Your task to perform on an android device: Open the calendar app, open the side menu, and click the "Day" option Image 0: 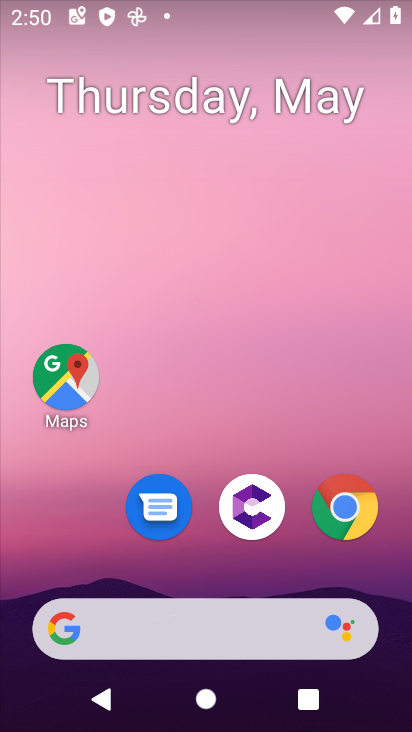
Step 0: drag from (381, 568) to (153, 19)
Your task to perform on an android device: Open the calendar app, open the side menu, and click the "Day" option Image 1: 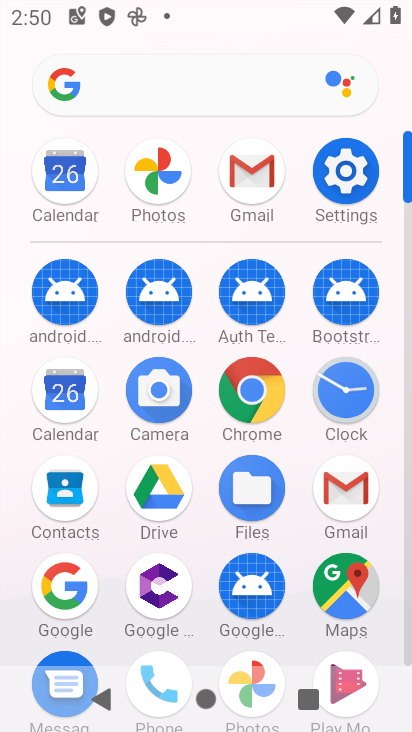
Step 1: click (52, 190)
Your task to perform on an android device: Open the calendar app, open the side menu, and click the "Day" option Image 2: 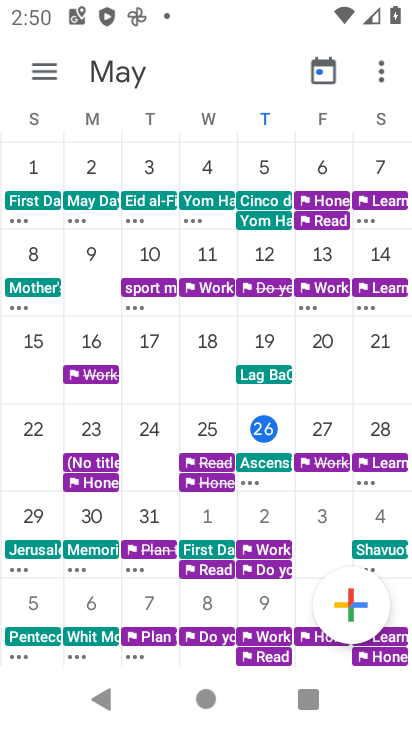
Step 2: click (27, 67)
Your task to perform on an android device: Open the calendar app, open the side menu, and click the "Day" option Image 3: 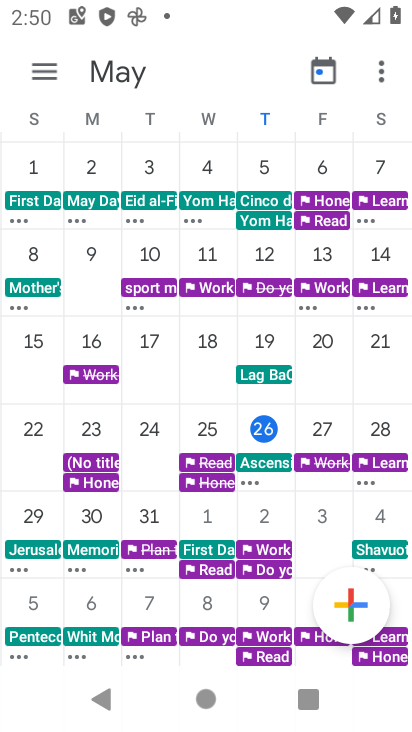
Step 3: click (43, 66)
Your task to perform on an android device: Open the calendar app, open the side menu, and click the "Day" option Image 4: 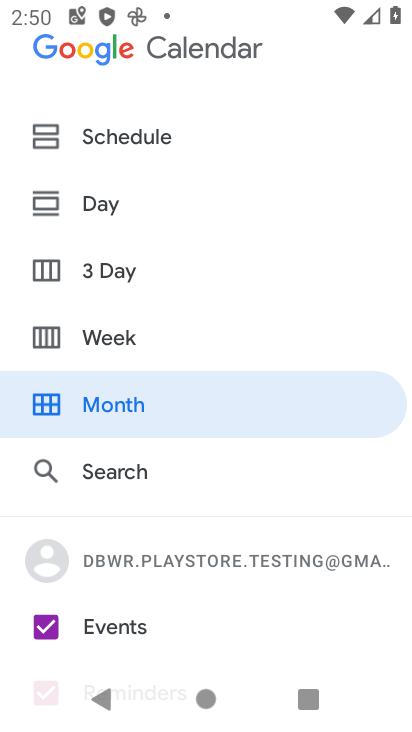
Step 4: click (102, 210)
Your task to perform on an android device: Open the calendar app, open the side menu, and click the "Day" option Image 5: 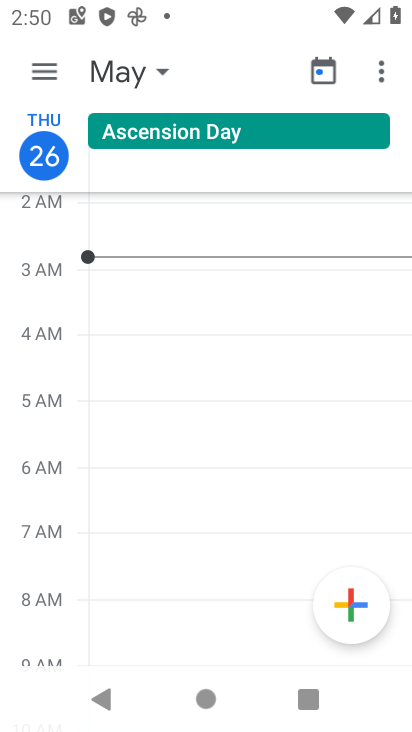
Step 5: task complete